Your task to perform on an android device: turn off wifi Image 0: 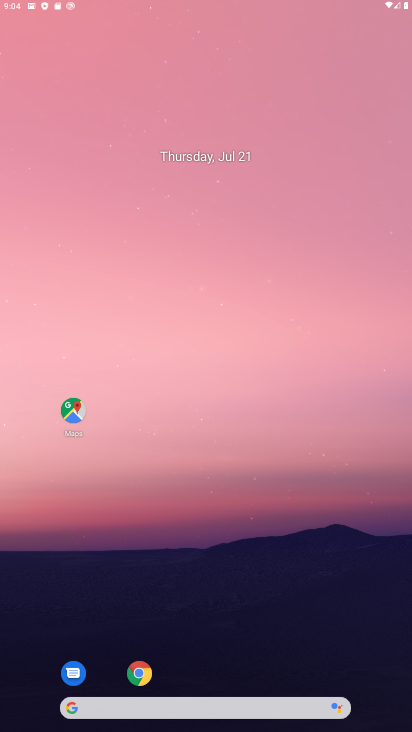
Step 0: press home button
Your task to perform on an android device: turn off wifi Image 1: 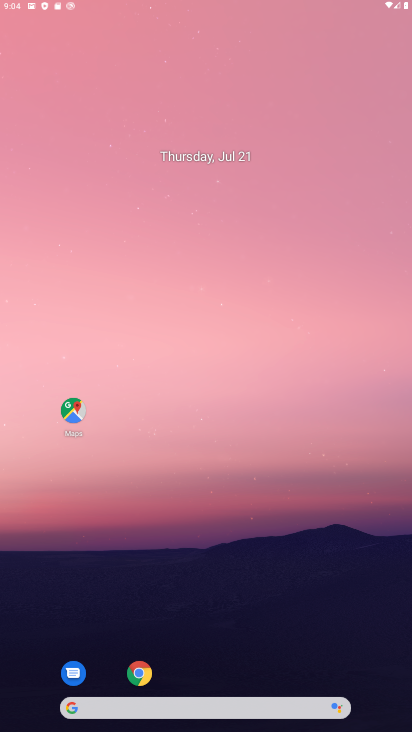
Step 1: click (248, 54)
Your task to perform on an android device: turn off wifi Image 2: 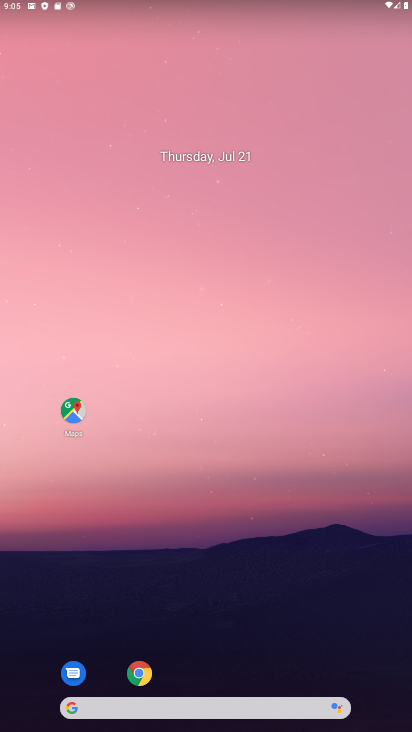
Step 2: drag from (147, 662) to (265, 179)
Your task to perform on an android device: turn off wifi Image 3: 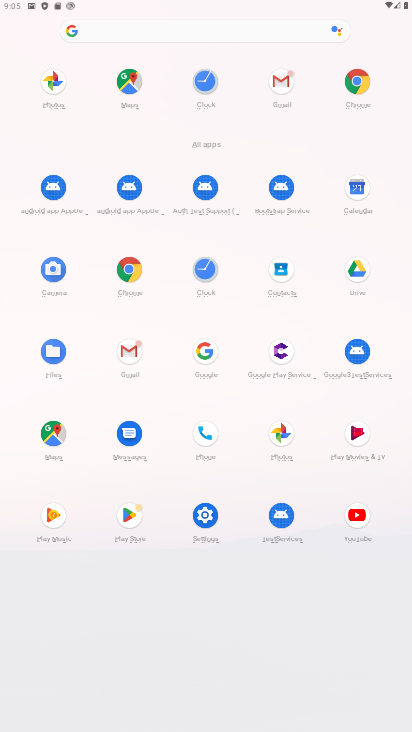
Step 3: click (195, 516)
Your task to perform on an android device: turn off wifi Image 4: 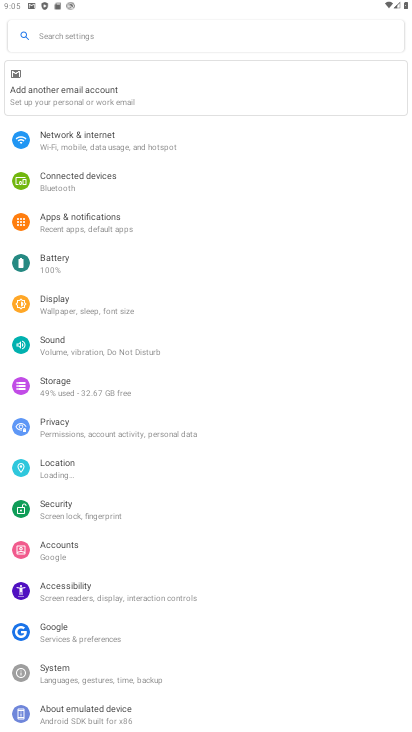
Step 4: click (97, 148)
Your task to perform on an android device: turn off wifi Image 5: 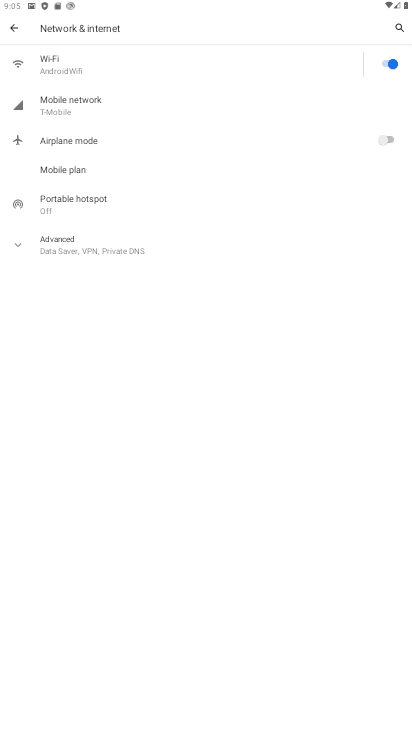
Step 5: click (82, 62)
Your task to perform on an android device: turn off wifi Image 6: 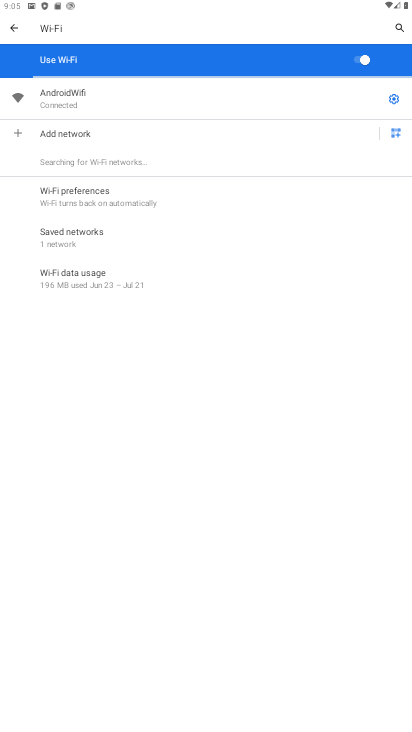
Step 6: click (363, 57)
Your task to perform on an android device: turn off wifi Image 7: 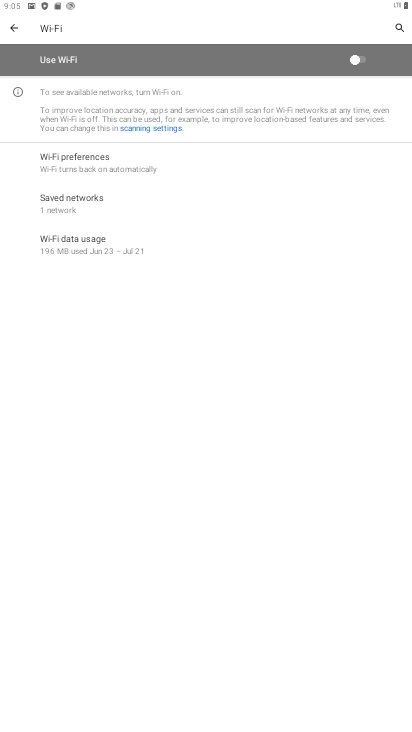
Step 7: task complete